Your task to perform on an android device: check data usage Image 0: 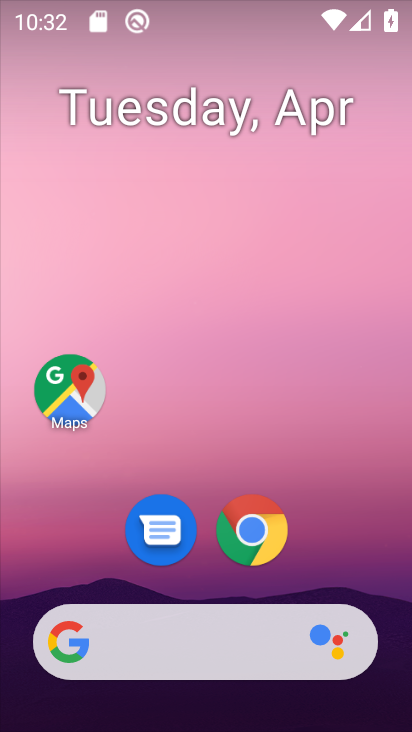
Step 0: drag from (224, 374) to (324, 55)
Your task to perform on an android device: check data usage Image 1: 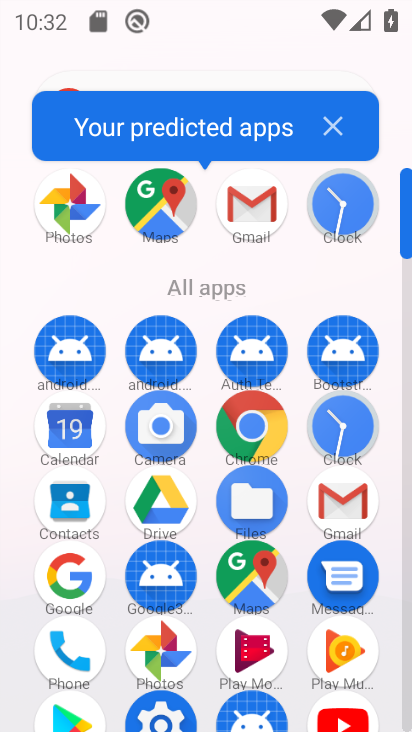
Step 1: drag from (211, 619) to (331, 163)
Your task to perform on an android device: check data usage Image 2: 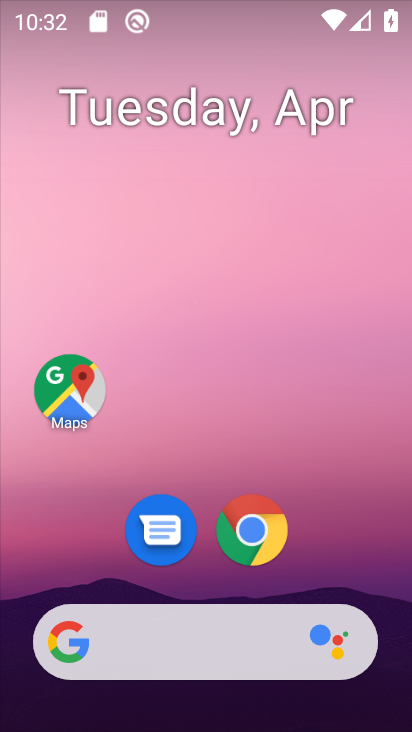
Step 2: drag from (180, 628) to (332, 76)
Your task to perform on an android device: check data usage Image 3: 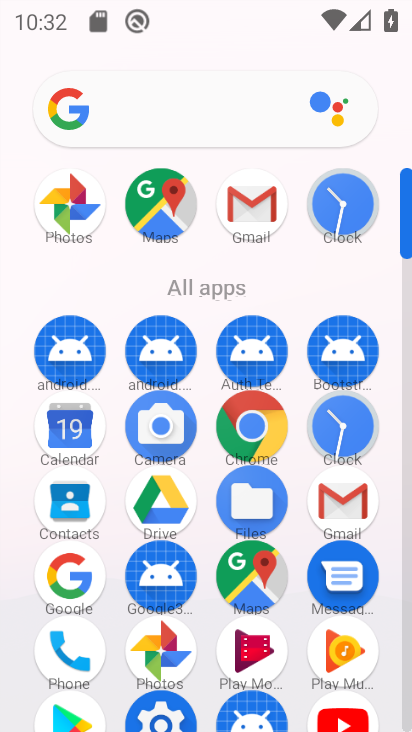
Step 3: drag from (132, 603) to (290, 165)
Your task to perform on an android device: check data usage Image 4: 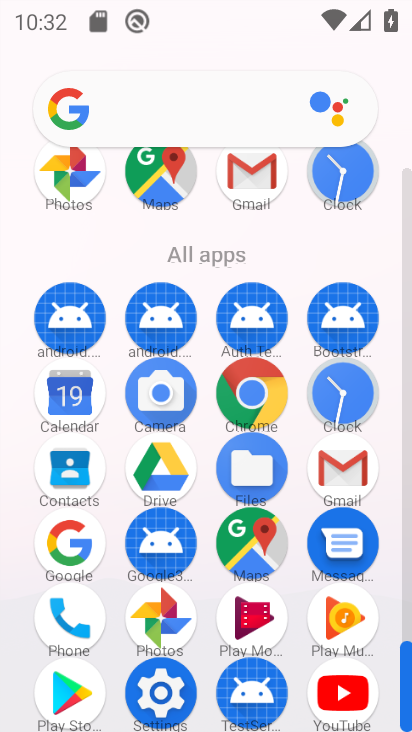
Step 4: click (159, 682)
Your task to perform on an android device: check data usage Image 5: 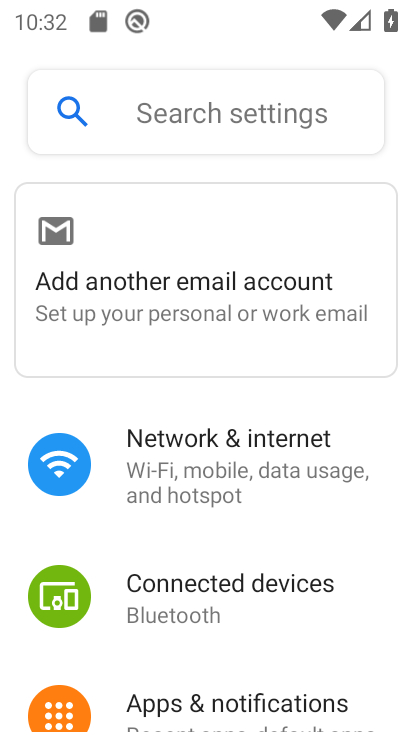
Step 5: click (222, 440)
Your task to perform on an android device: check data usage Image 6: 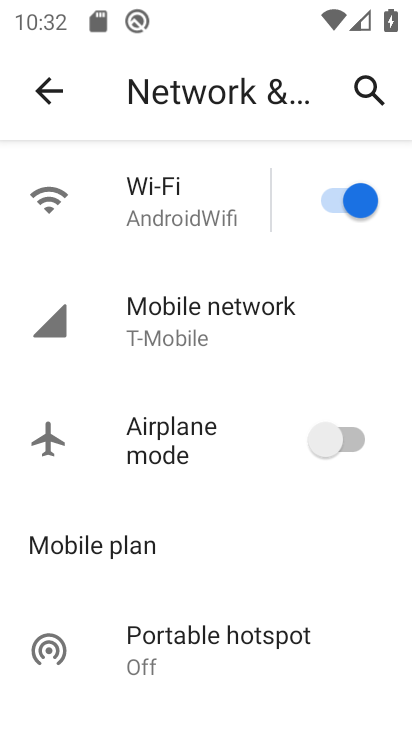
Step 6: click (159, 216)
Your task to perform on an android device: check data usage Image 7: 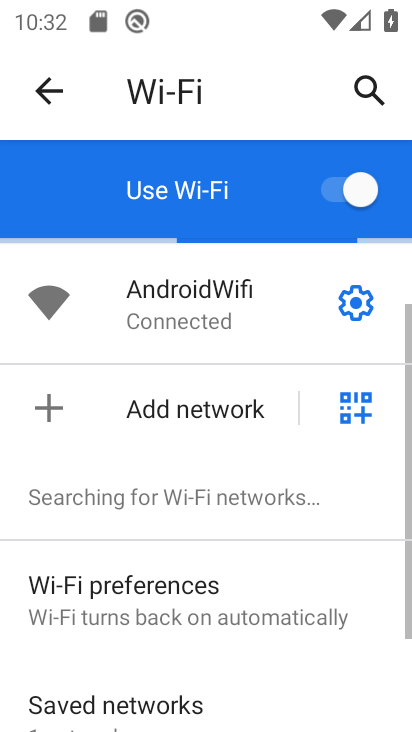
Step 7: drag from (140, 647) to (332, 61)
Your task to perform on an android device: check data usage Image 8: 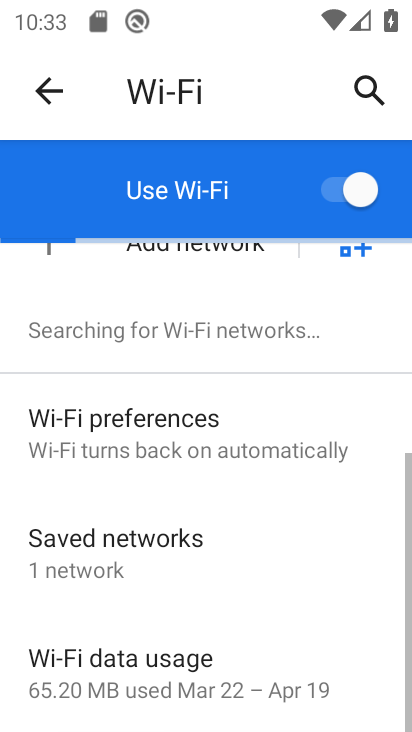
Step 8: drag from (210, 533) to (305, 185)
Your task to perform on an android device: check data usage Image 9: 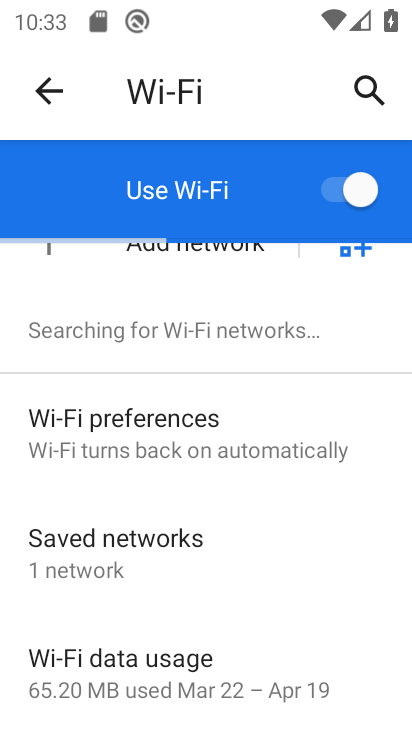
Step 9: click (157, 663)
Your task to perform on an android device: check data usage Image 10: 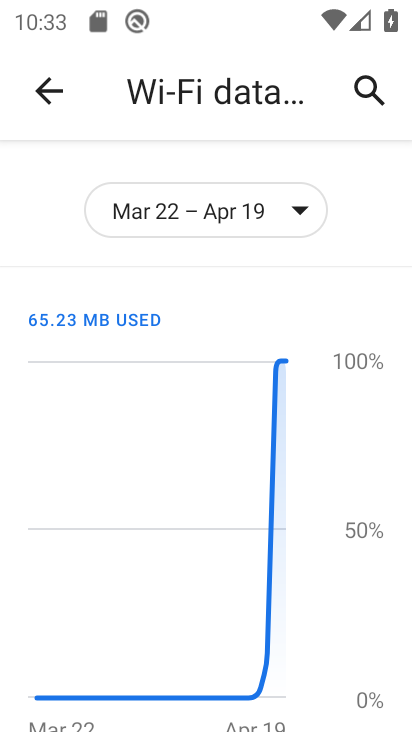
Step 10: task complete